Your task to perform on an android device: check data usage Image 0: 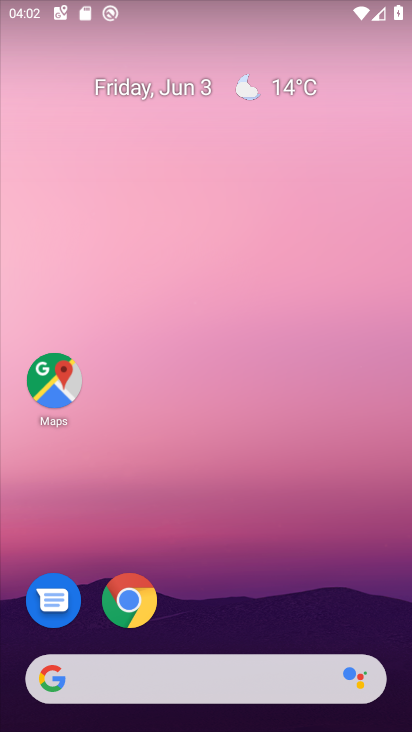
Step 0: drag from (245, 596) to (214, 127)
Your task to perform on an android device: check data usage Image 1: 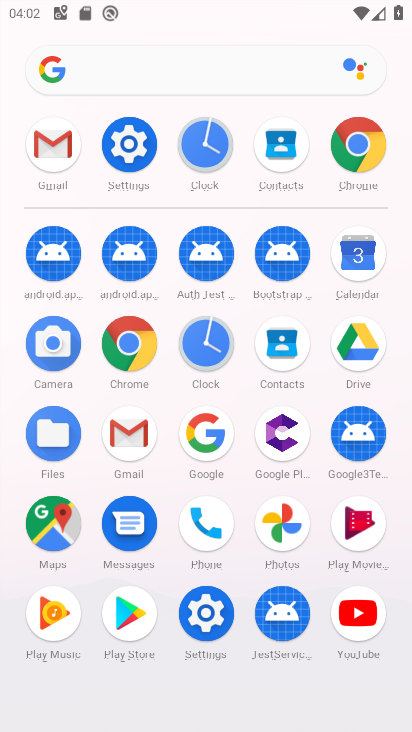
Step 1: click (129, 138)
Your task to perform on an android device: check data usage Image 2: 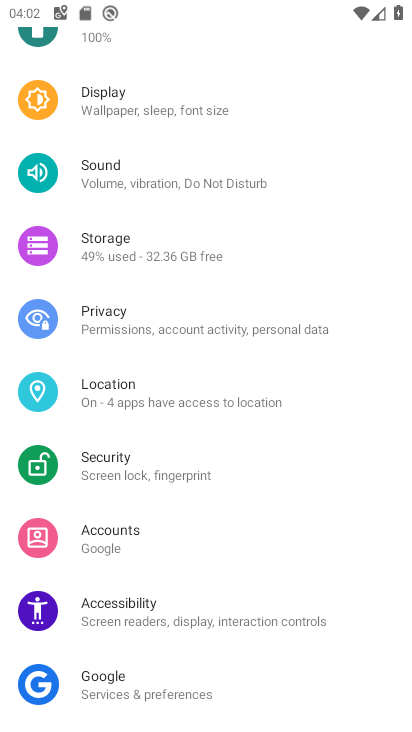
Step 2: drag from (210, 212) to (192, 497)
Your task to perform on an android device: check data usage Image 3: 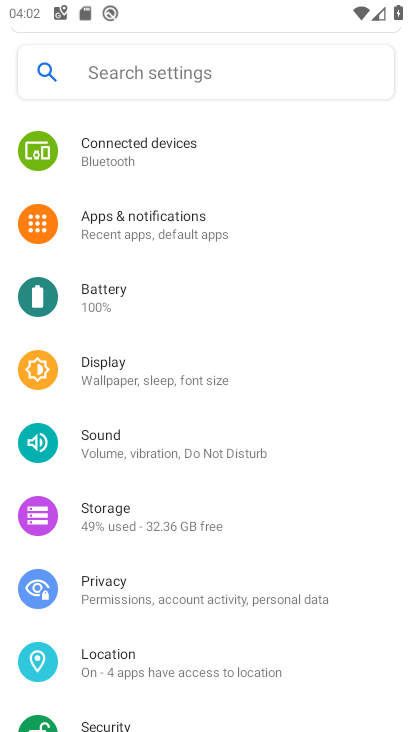
Step 3: drag from (181, 234) to (182, 533)
Your task to perform on an android device: check data usage Image 4: 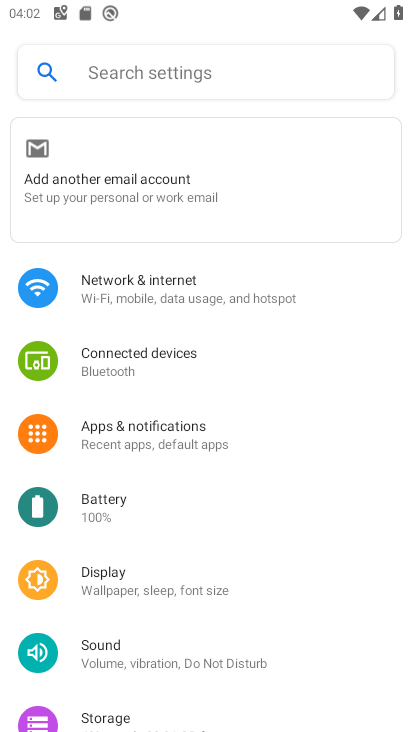
Step 4: click (157, 303)
Your task to perform on an android device: check data usage Image 5: 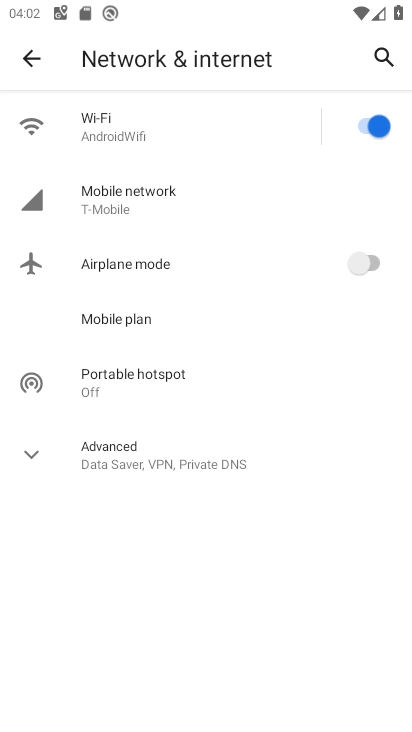
Step 5: click (161, 209)
Your task to perform on an android device: check data usage Image 6: 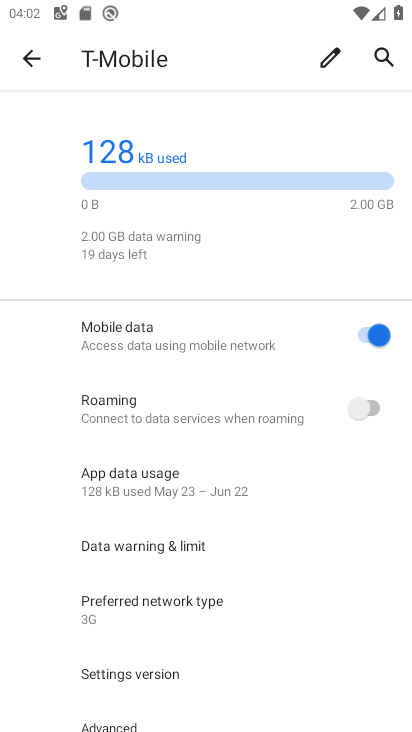
Step 6: task complete